Your task to perform on an android device: Open wifi settings Image 0: 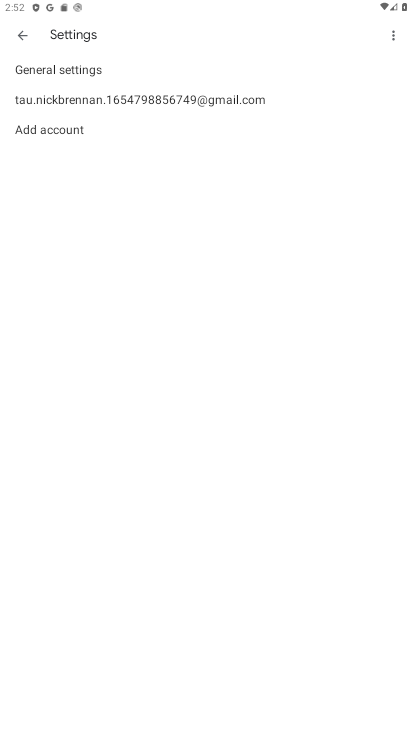
Step 0: press home button
Your task to perform on an android device: Open wifi settings Image 1: 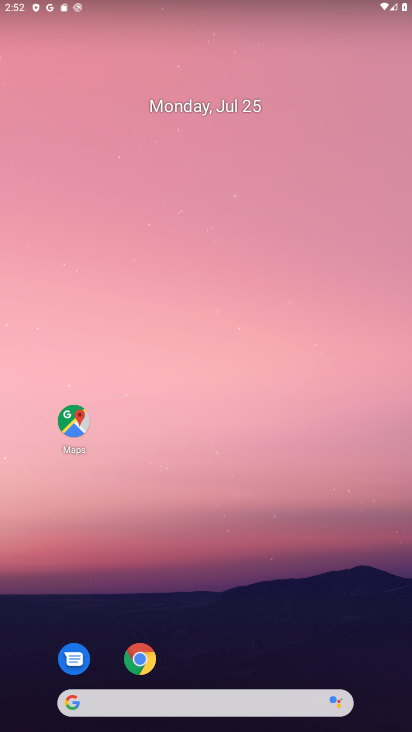
Step 1: drag from (206, 689) to (145, 74)
Your task to perform on an android device: Open wifi settings Image 2: 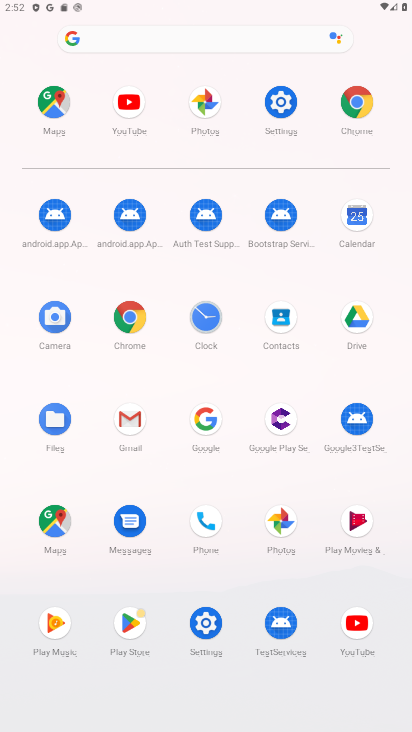
Step 2: click (269, 120)
Your task to perform on an android device: Open wifi settings Image 3: 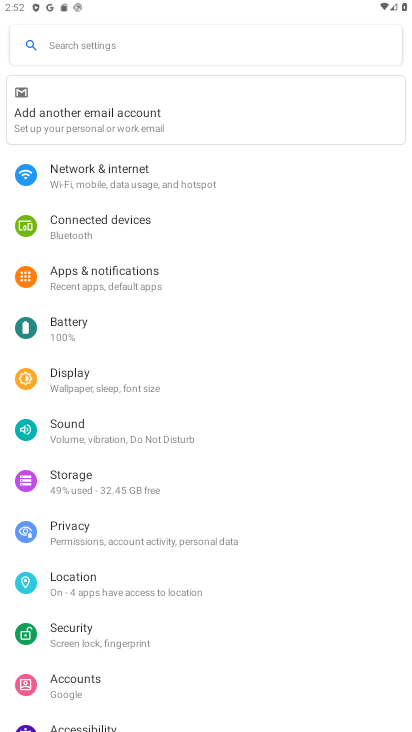
Step 3: click (82, 186)
Your task to perform on an android device: Open wifi settings Image 4: 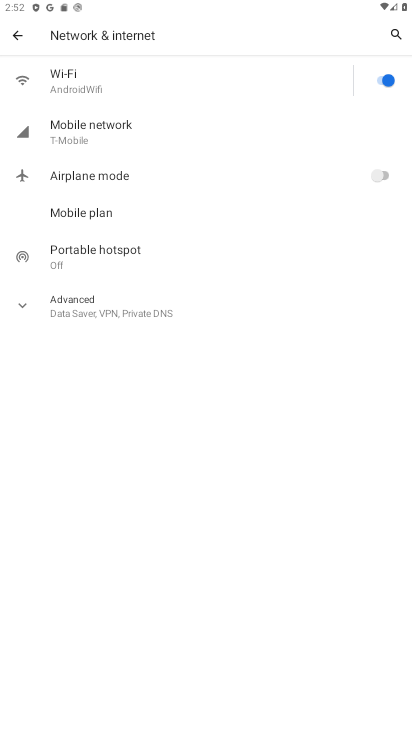
Step 4: click (65, 79)
Your task to perform on an android device: Open wifi settings Image 5: 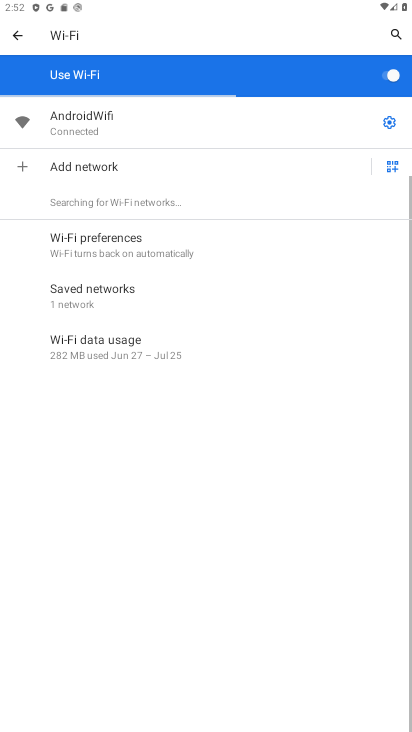
Step 5: task complete